Your task to perform on an android device: turn off picture-in-picture Image 0: 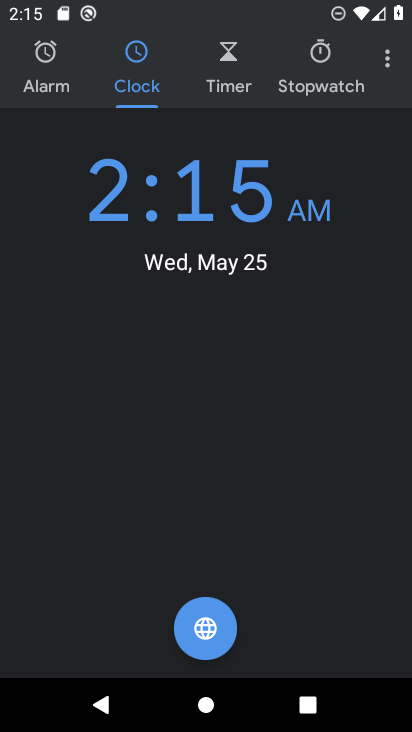
Step 0: press home button
Your task to perform on an android device: turn off picture-in-picture Image 1: 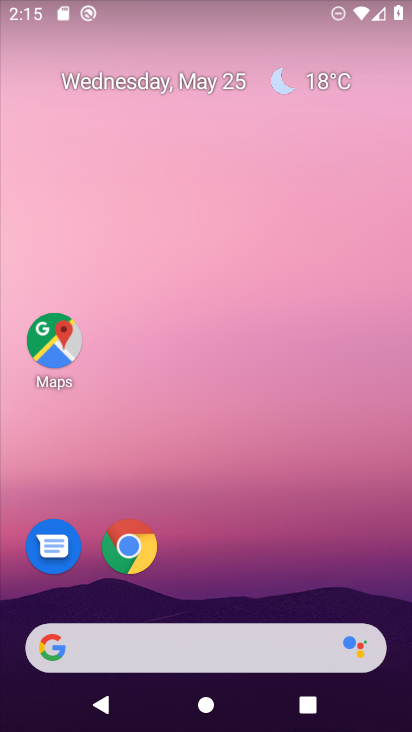
Step 1: click (124, 530)
Your task to perform on an android device: turn off picture-in-picture Image 2: 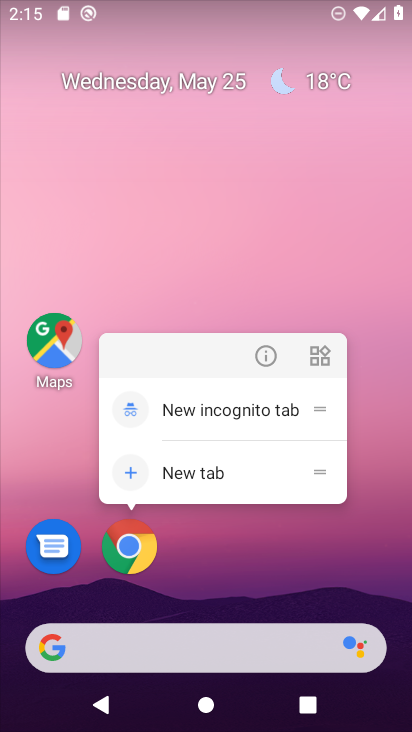
Step 2: click (270, 353)
Your task to perform on an android device: turn off picture-in-picture Image 3: 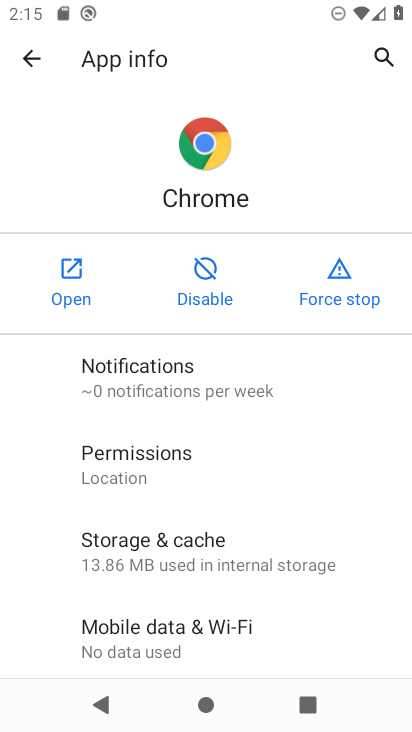
Step 3: drag from (180, 592) to (214, 84)
Your task to perform on an android device: turn off picture-in-picture Image 4: 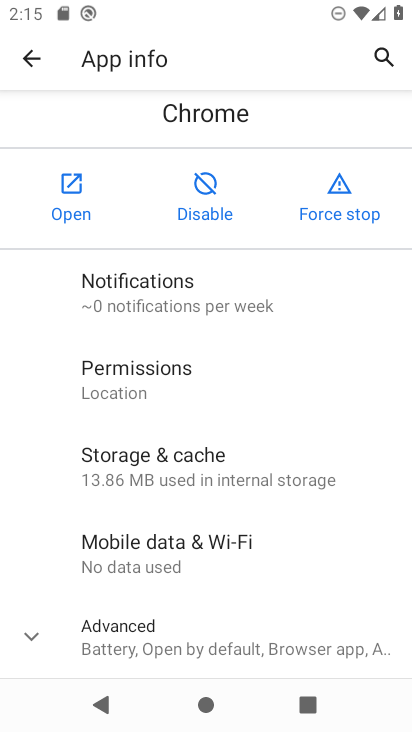
Step 4: click (142, 633)
Your task to perform on an android device: turn off picture-in-picture Image 5: 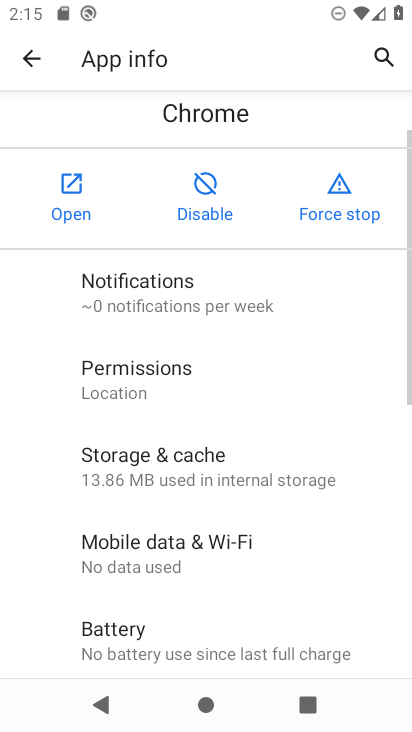
Step 5: drag from (177, 608) to (217, 189)
Your task to perform on an android device: turn off picture-in-picture Image 6: 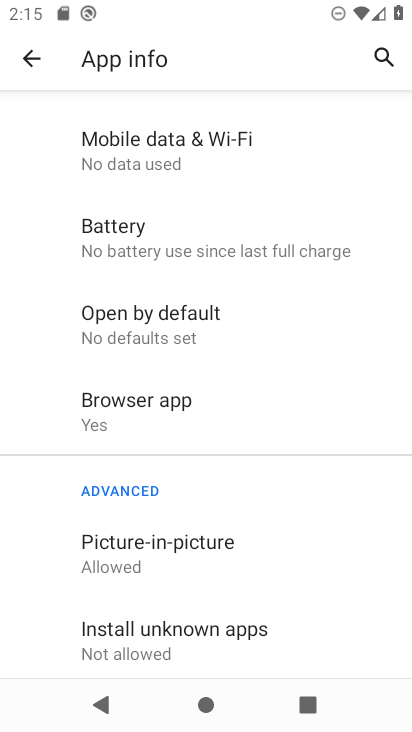
Step 6: click (158, 555)
Your task to perform on an android device: turn off picture-in-picture Image 7: 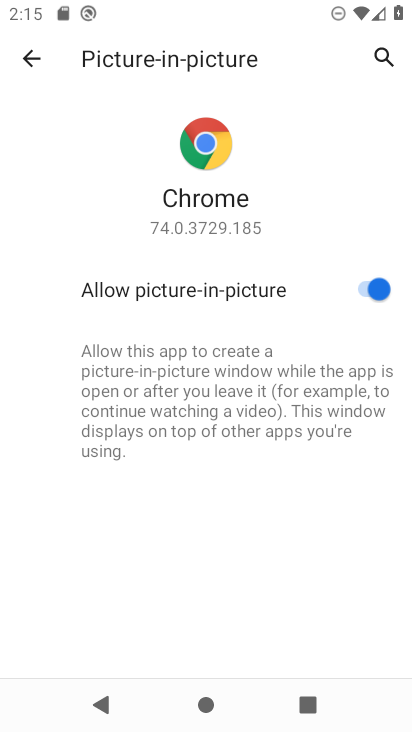
Step 7: click (346, 286)
Your task to perform on an android device: turn off picture-in-picture Image 8: 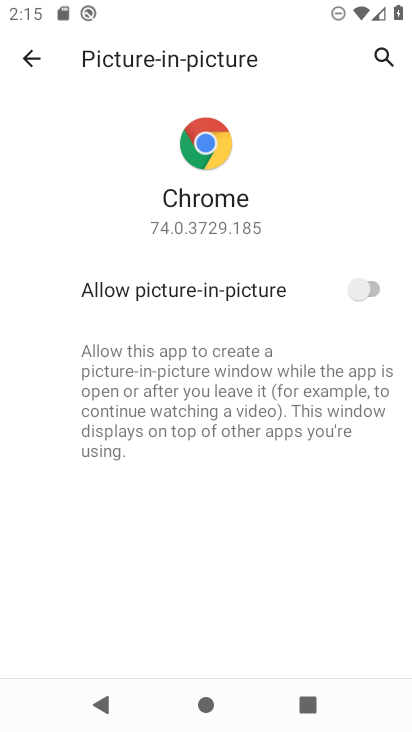
Step 8: task complete